Your task to perform on an android device: open wifi settings Image 0: 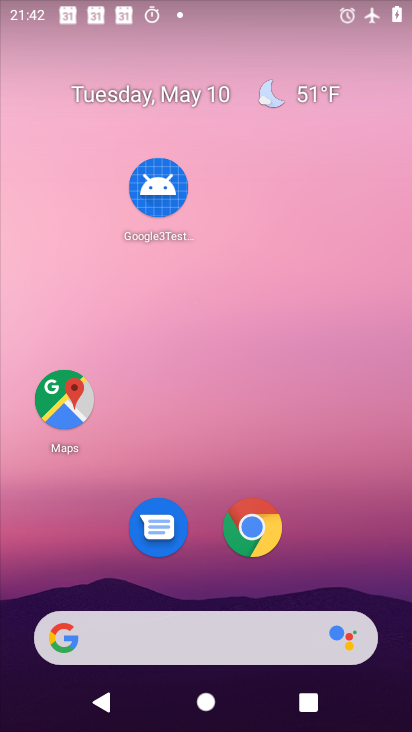
Step 0: drag from (211, 583) to (293, 3)
Your task to perform on an android device: open wifi settings Image 1: 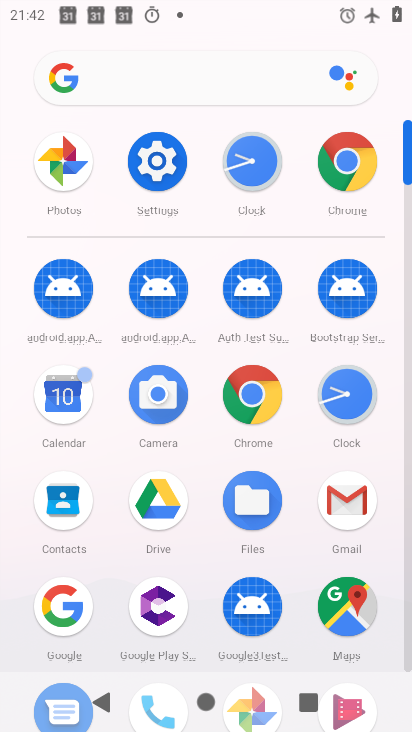
Step 1: click (158, 189)
Your task to perform on an android device: open wifi settings Image 2: 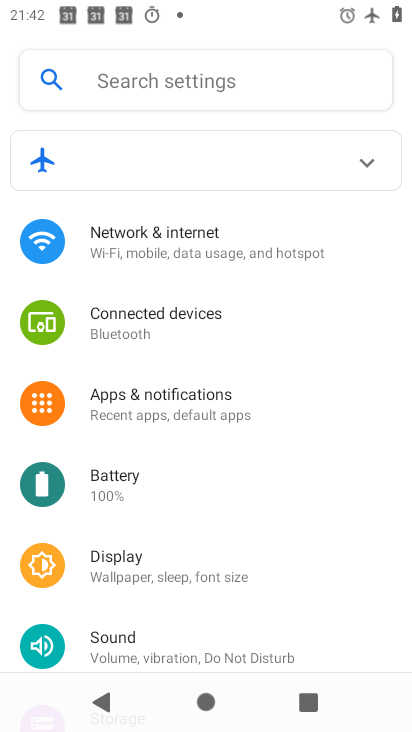
Step 2: click (178, 229)
Your task to perform on an android device: open wifi settings Image 3: 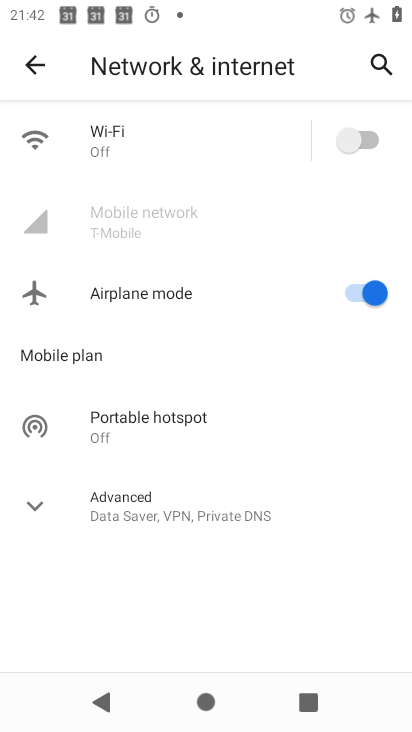
Step 3: click (113, 151)
Your task to perform on an android device: open wifi settings Image 4: 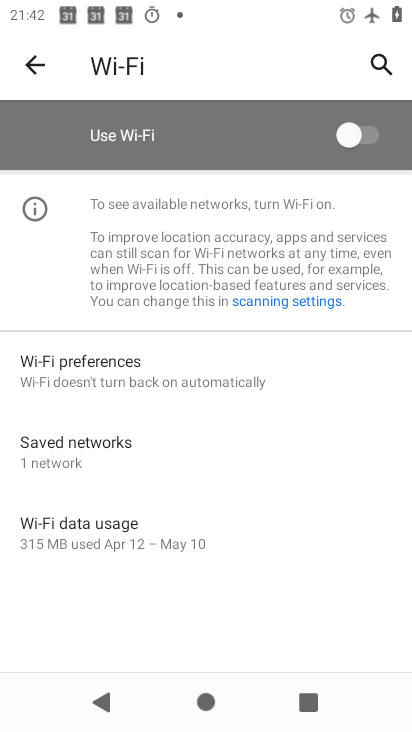
Step 4: task complete